Your task to perform on an android device: Go to Amazon Image 0: 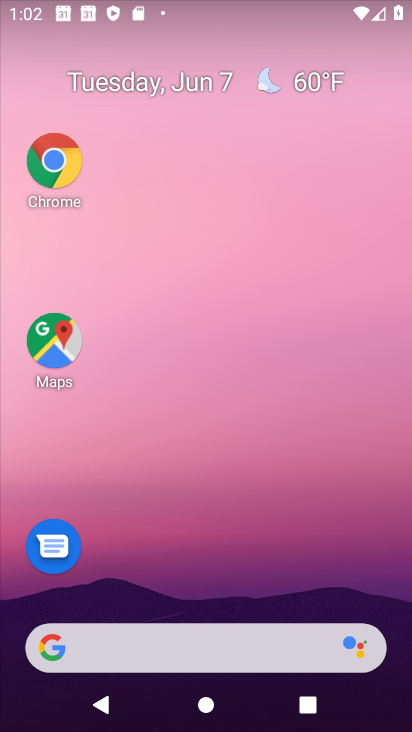
Step 0: drag from (202, 602) to (235, 105)
Your task to perform on an android device: Go to Amazon Image 1: 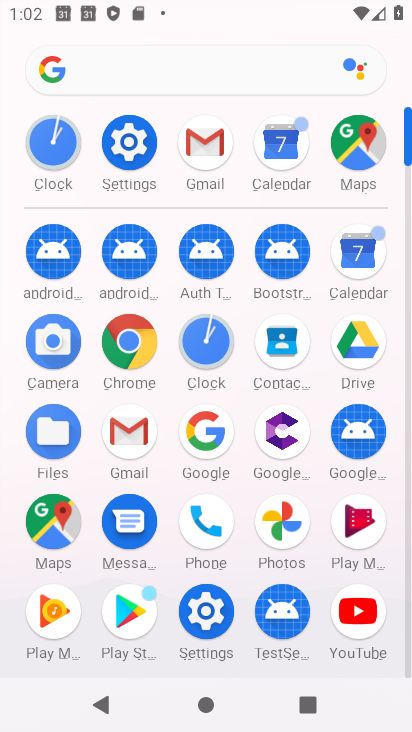
Step 1: click (124, 348)
Your task to perform on an android device: Go to Amazon Image 2: 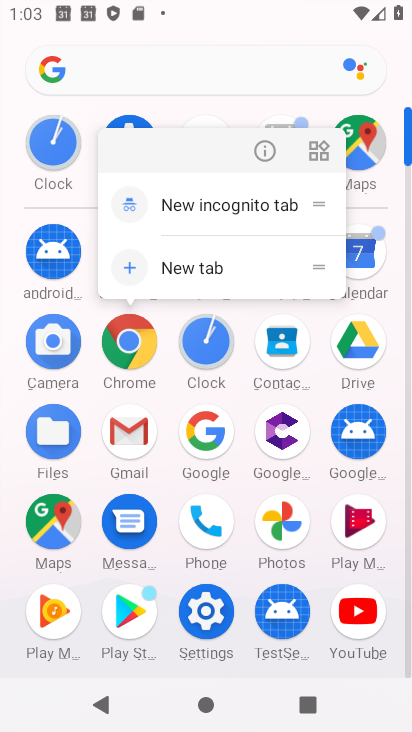
Step 2: click (268, 160)
Your task to perform on an android device: Go to Amazon Image 3: 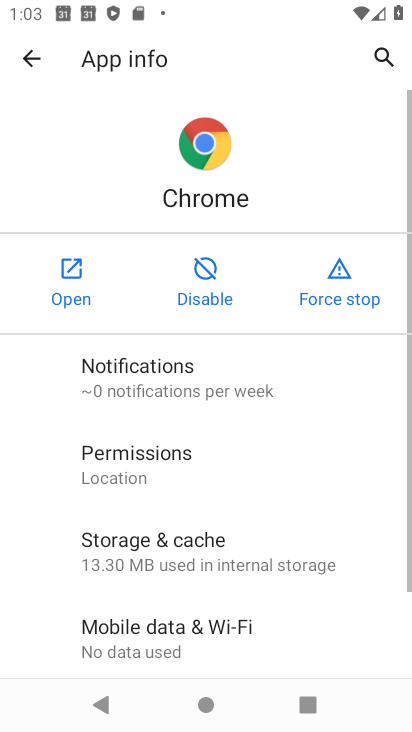
Step 3: click (86, 301)
Your task to perform on an android device: Go to Amazon Image 4: 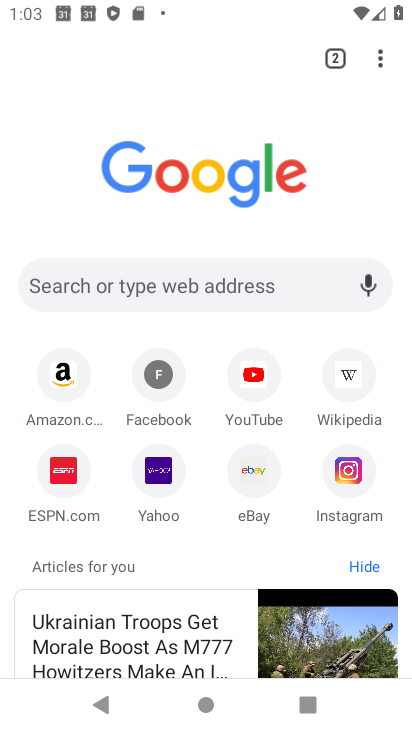
Step 4: click (68, 377)
Your task to perform on an android device: Go to Amazon Image 5: 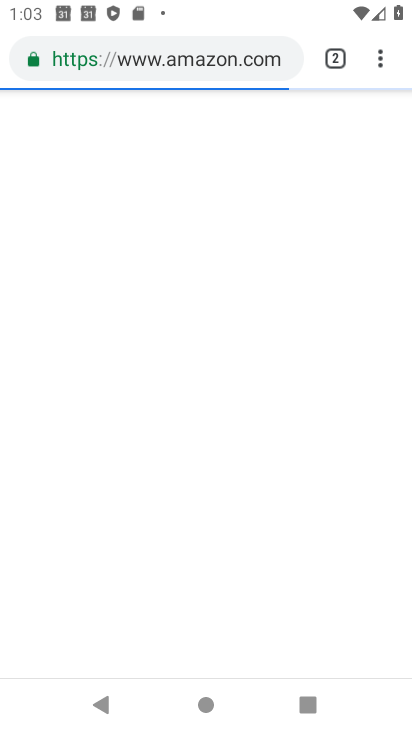
Step 5: task complete